Your task to perform on an android device: Clear the shopping cart on ebay. Image 0: 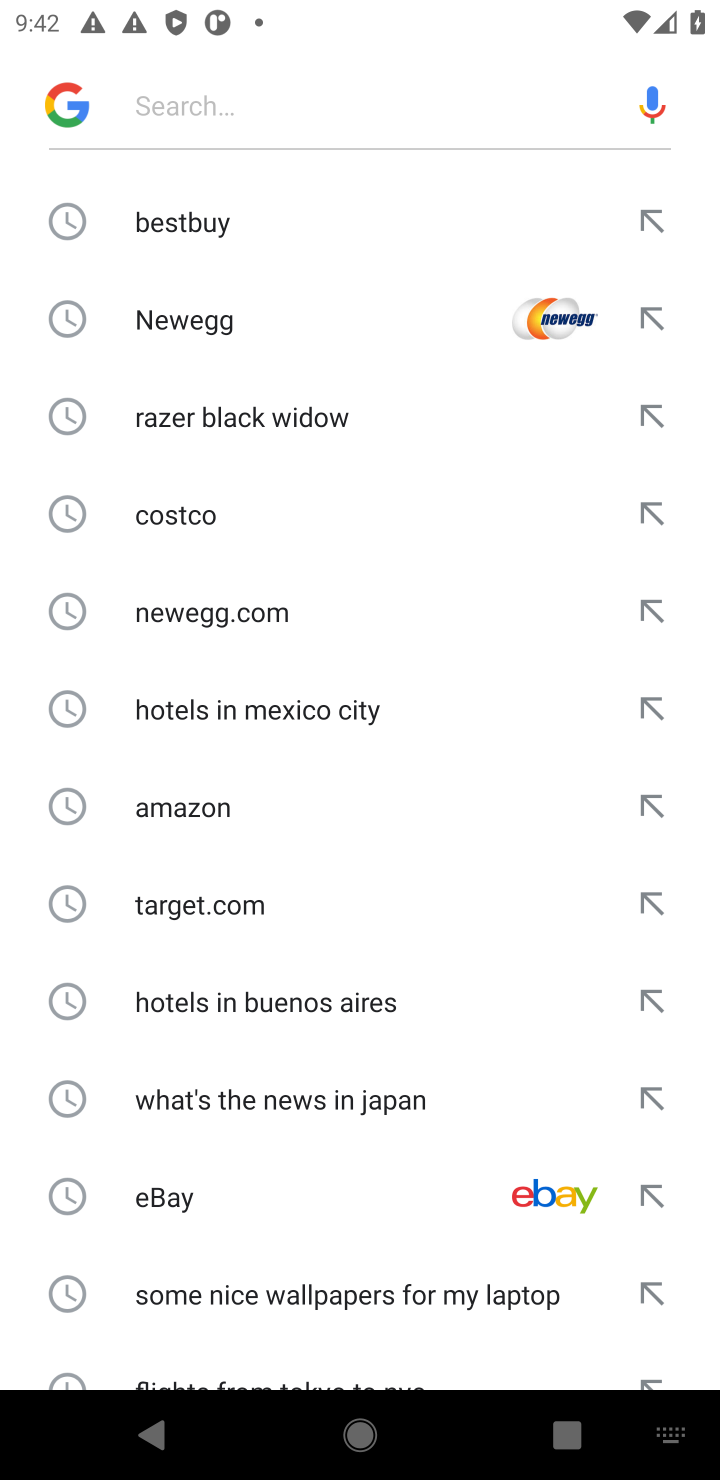
Step 0: click (426, 1189)
Your task to perform on an android device: Clear the shopping cart on ebay. Image 1: 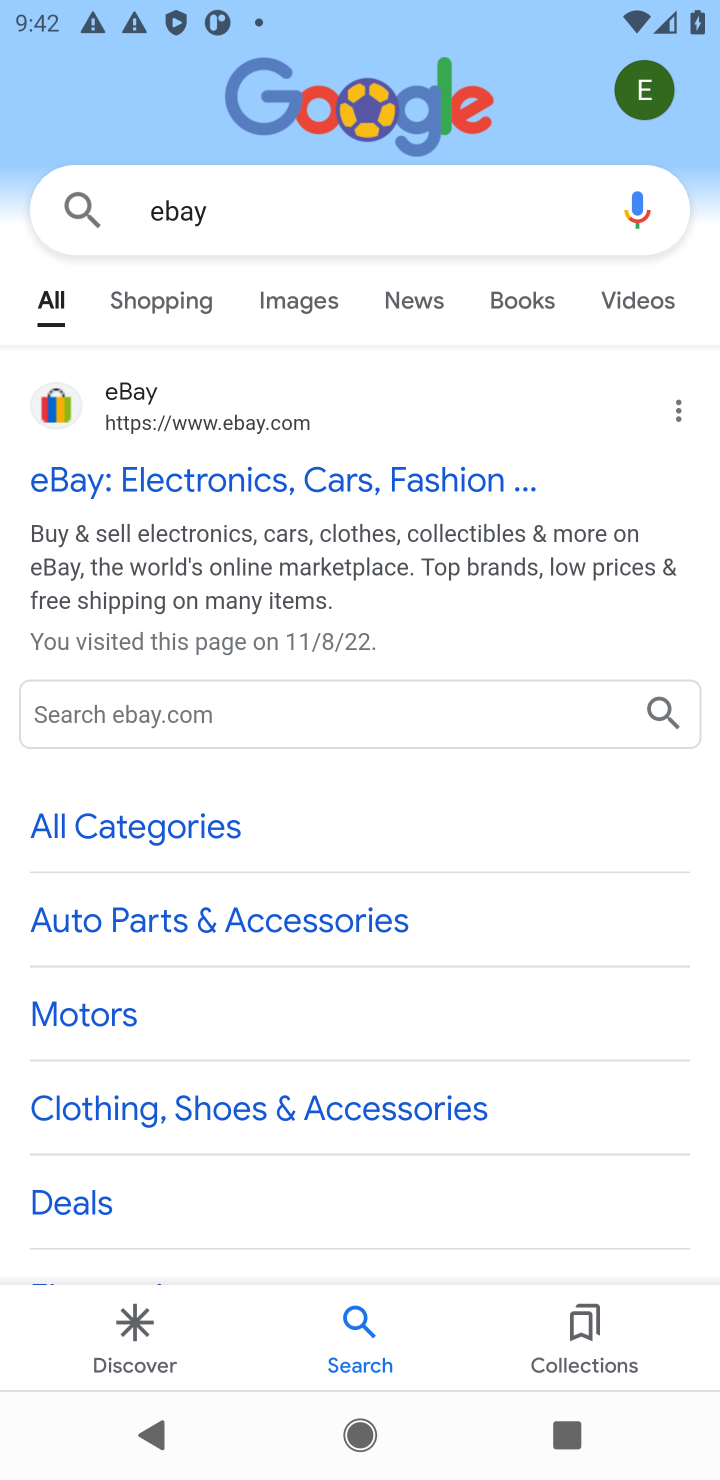
Step 1: click (132, 507)
Your task to perform on an android device: Clear the shopping cart on ebay. Image 2: 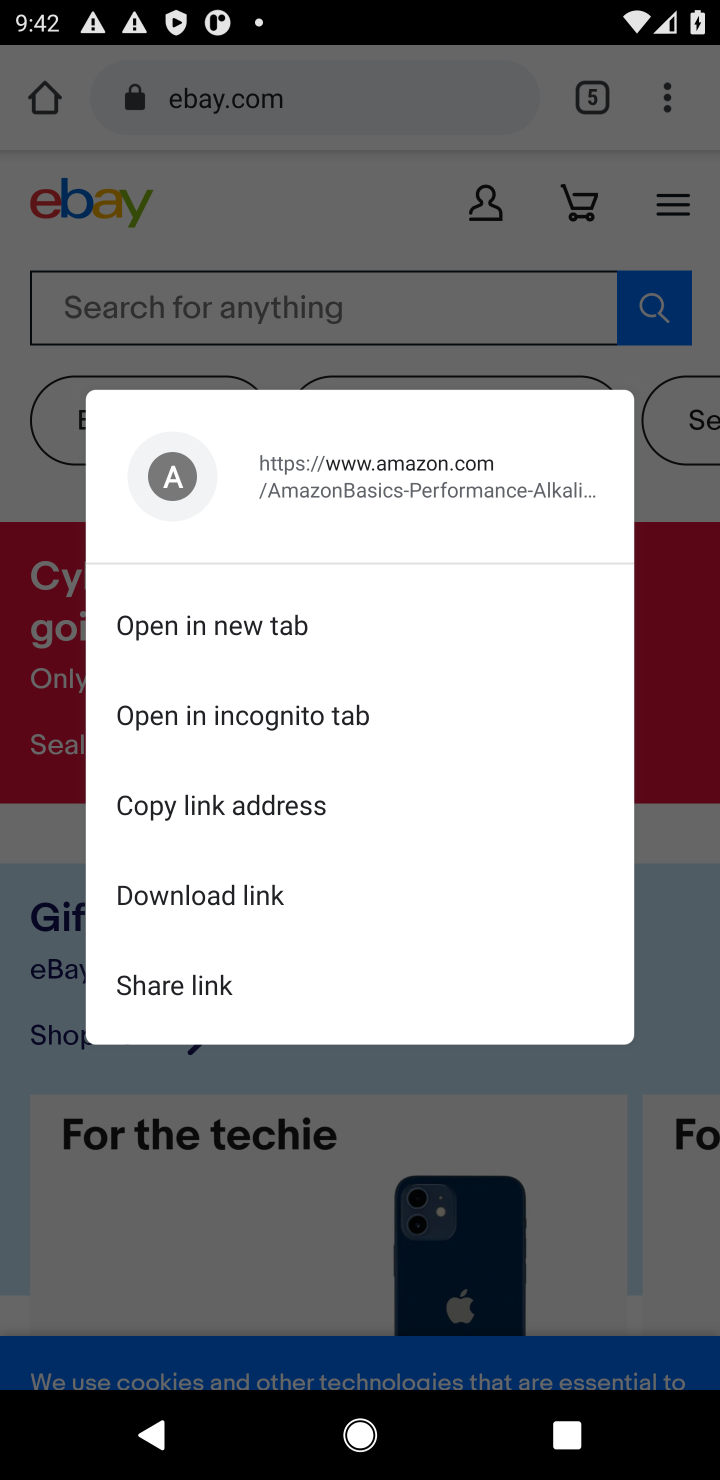
Step 2: click (498, 1131)
Your task to perform on an android device: Clear the shopping cart on ebay. Image 3: 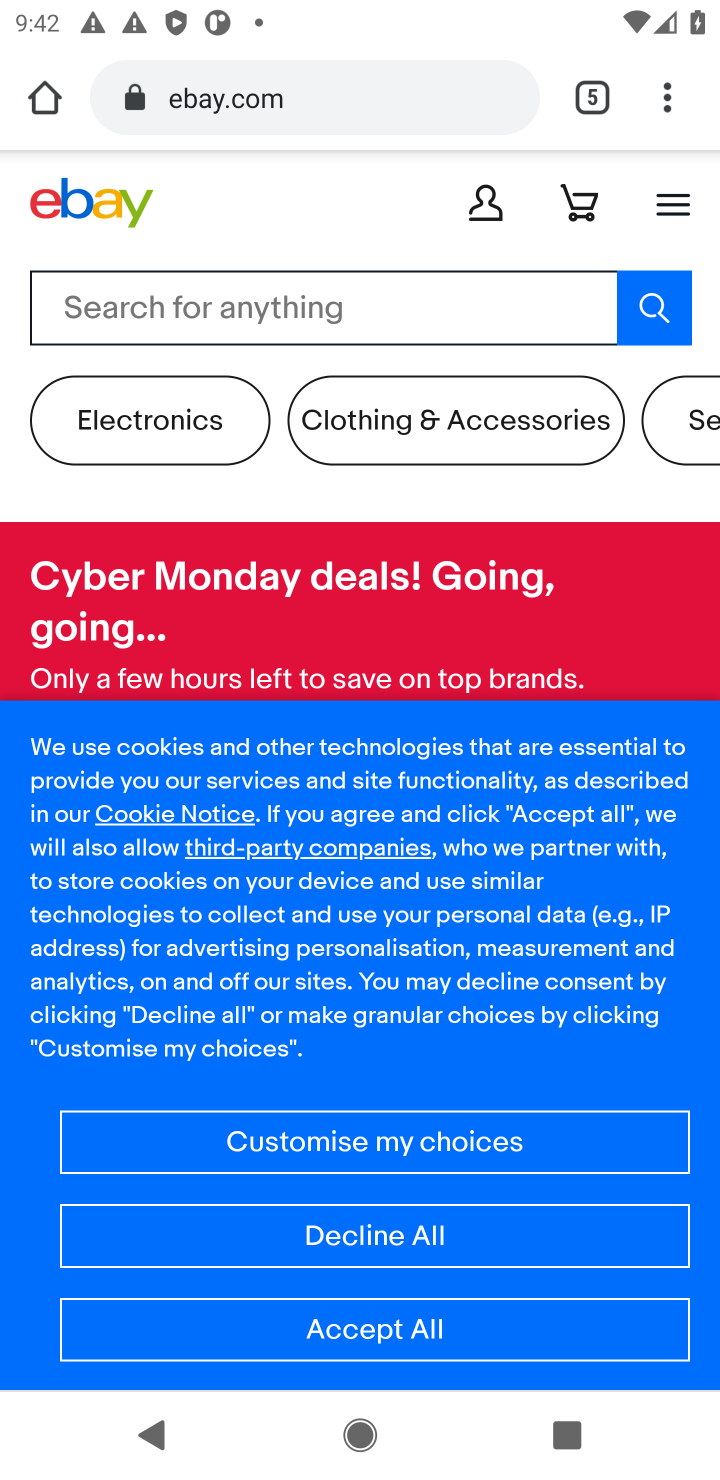
Step 3: click (479, 1333)
Your task to perform on an android device: Clear the shopping cart on ebay. Image 4: 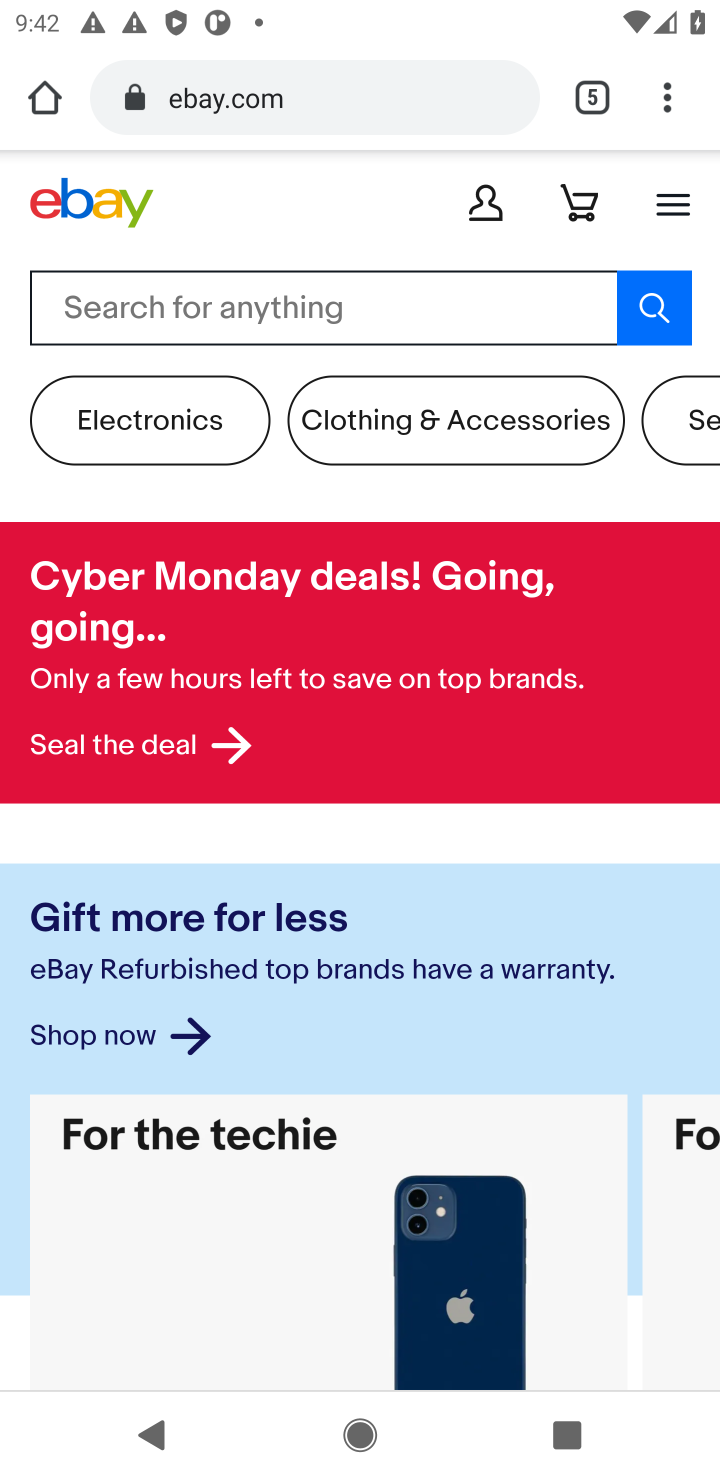
Step 4: click (417, 310)
Your task to perform on an android device: Clear the shopping cart on ebay. Image 5: 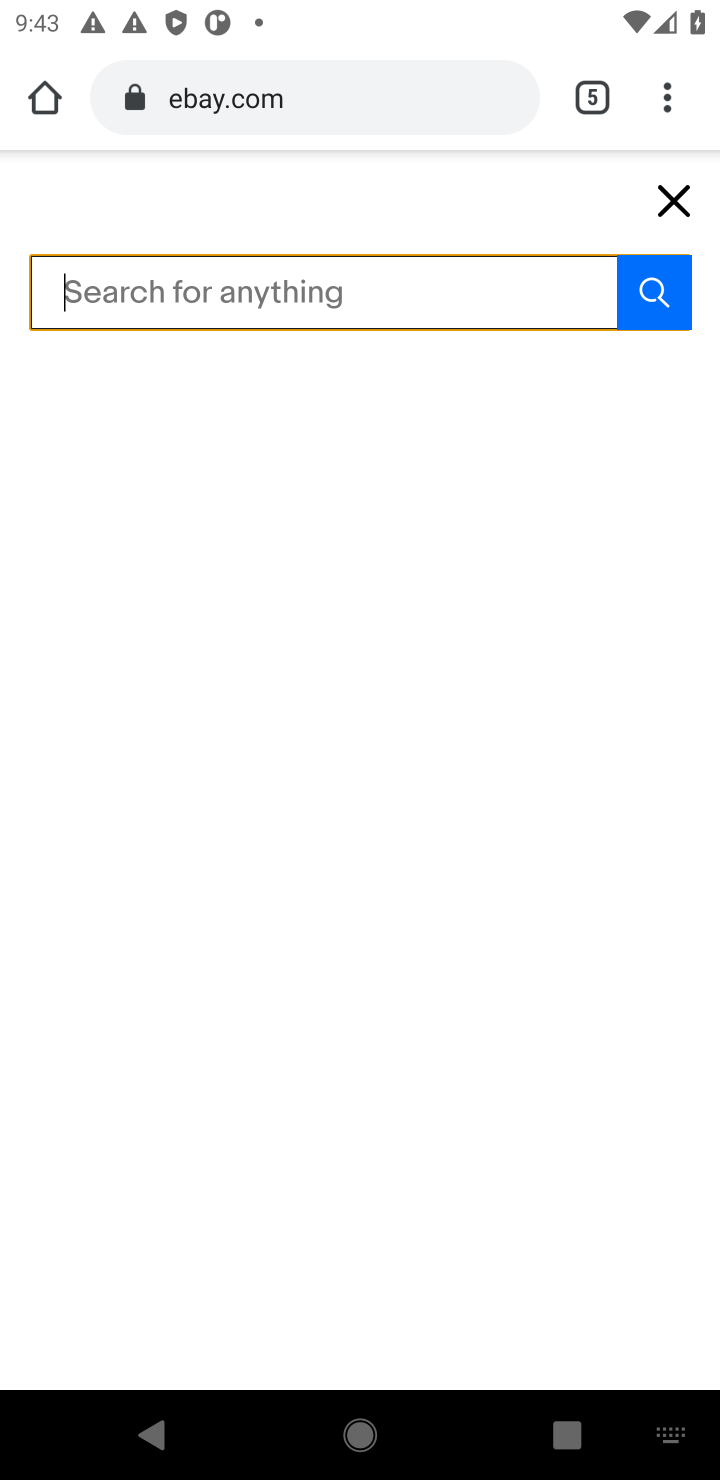
Step 5: type "ebay.com"
Your task to perform on an android device: Clear the shopping cart on ebay. Image 6: 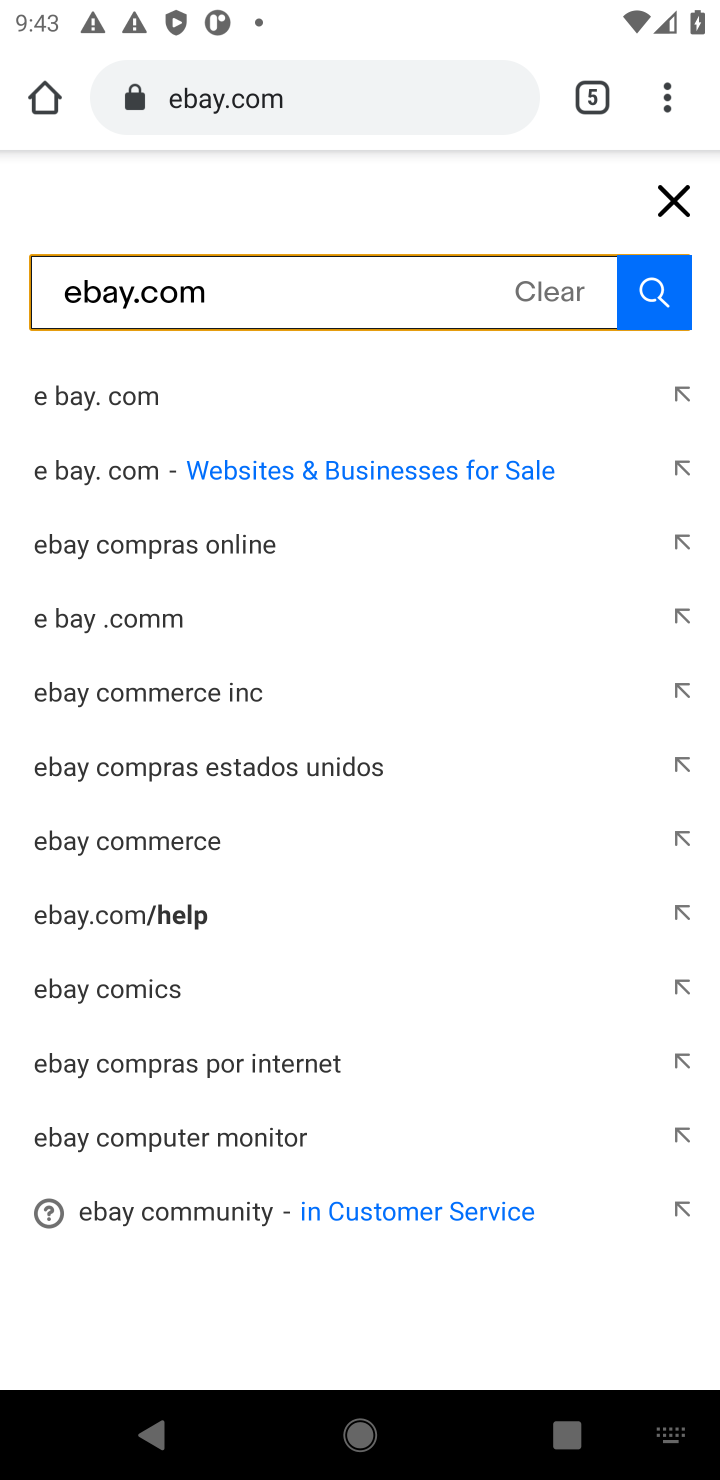
Step 6: click (274, 408)
Your task to perform on an android device: Clear the shopping cart on ebay. Image 7: 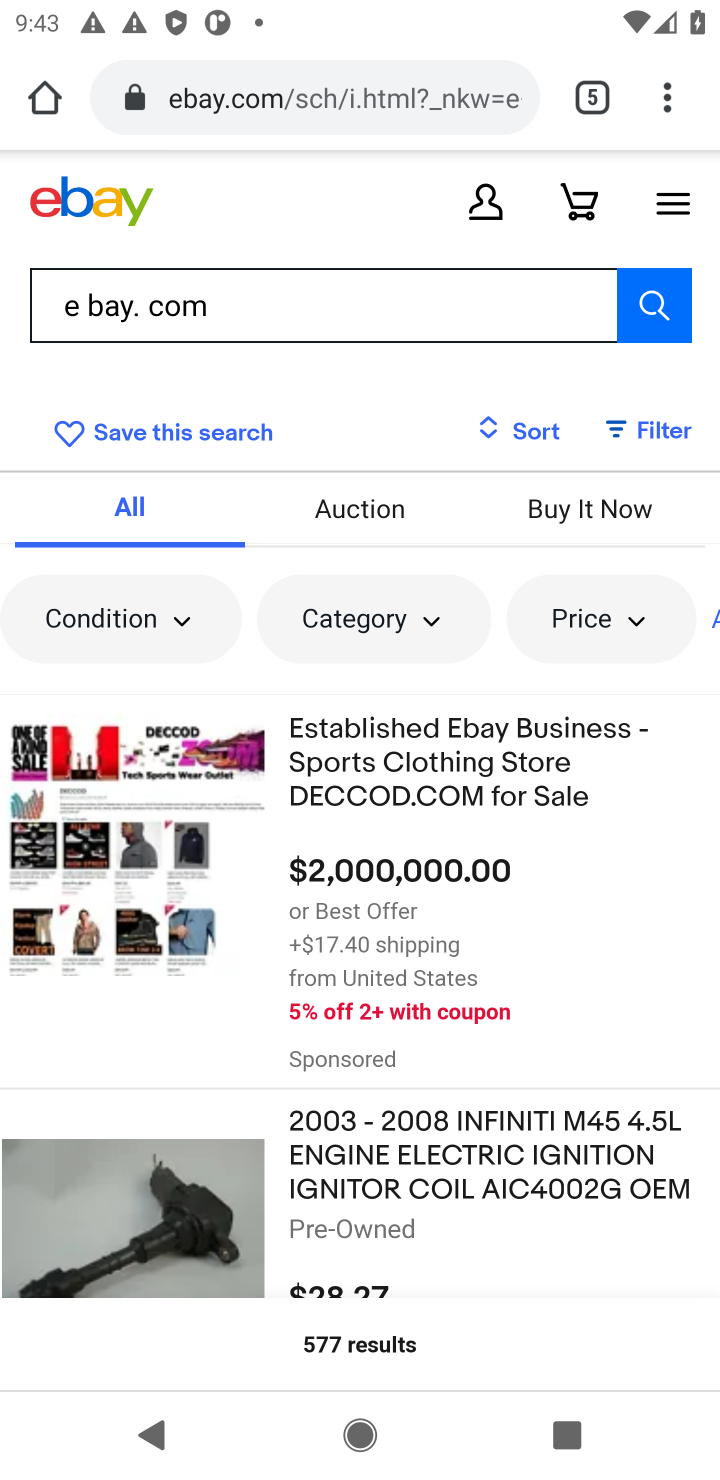
Step 7: task complete